Your task to perform on an android device: turn on wifi Image 0: 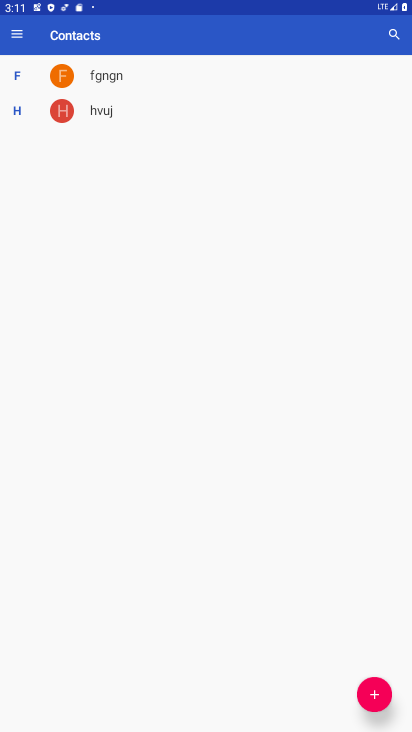
Step 0: press home button
Your task to perform on an android device: turn on wifi Image 1: 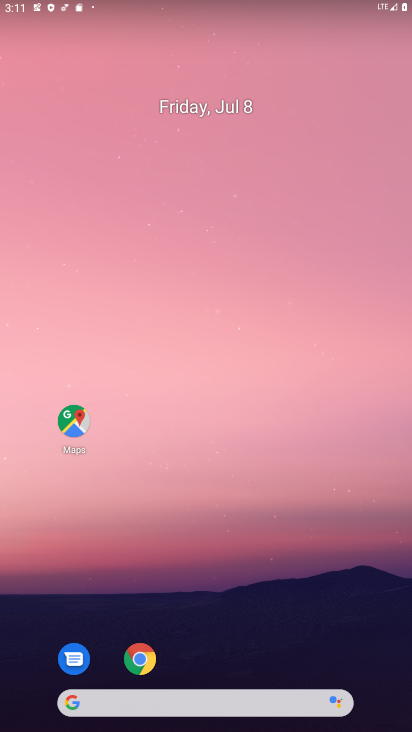
Step 1: drag from (220, 670) to (228, 318)
Your task to perform on an android device: turn on wifi Image 2: 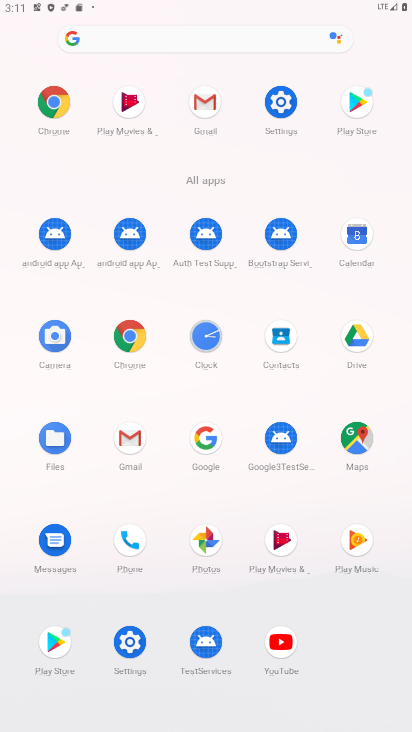
Step 2: click (281, 116)
Your task to perform on an android device: turn on wifi Image 3: 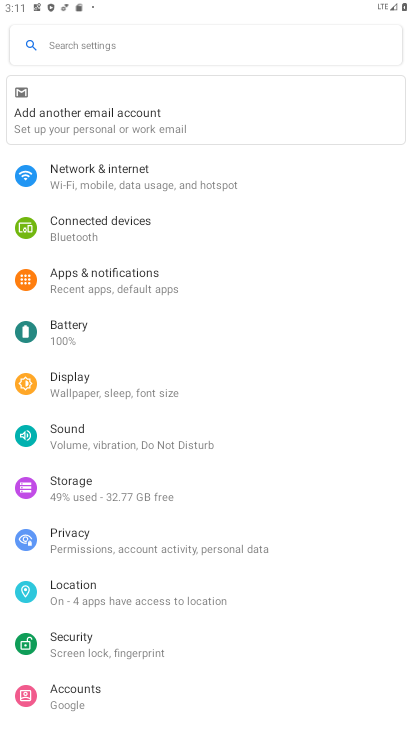
Step 3: click (178, 179)
Your task to perform on an android device: turn on wifi Image 4: 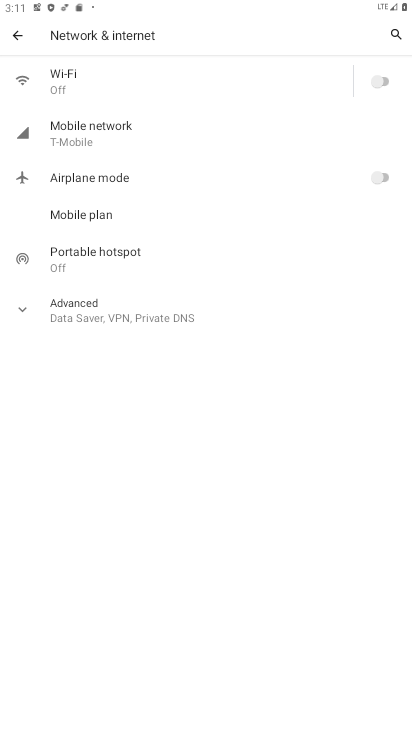
Step 4: click (188, 80)
Your task to perform on an android device: turn on wifi Image 5: 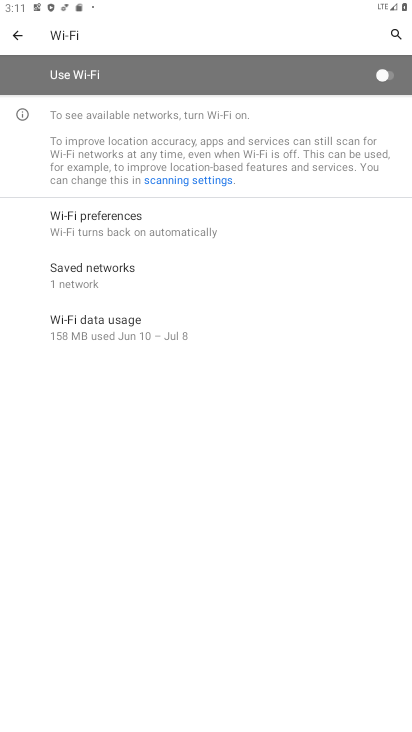
Step 5: click (391, 83)
Your task to perform on an android device: turn on wifi Image 6: 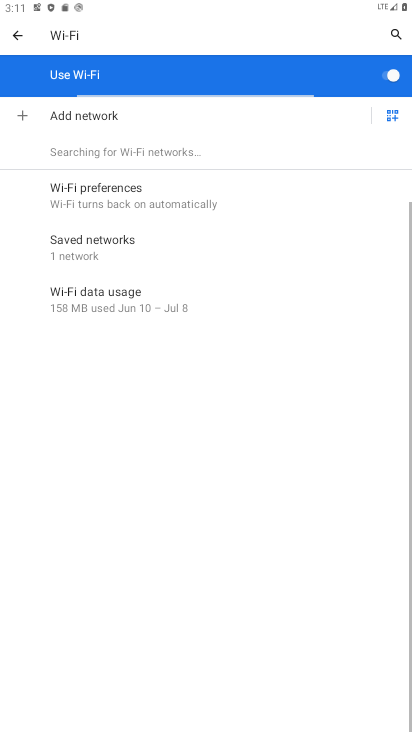
Step 6: task complete